Your task to perform on an android device: turn off data saver in the chrome app Image 0: 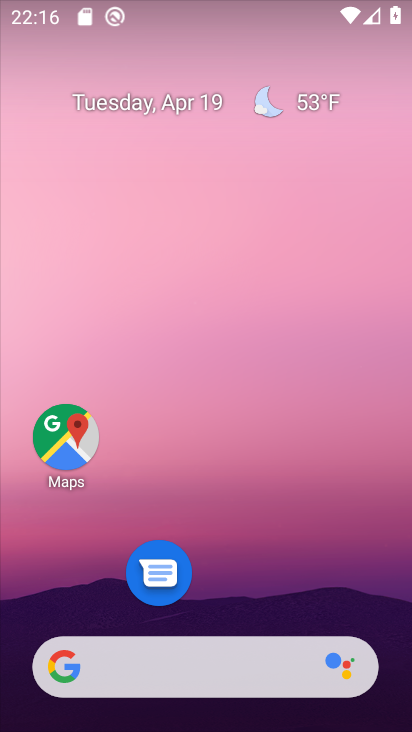
Step 0: drag from (244, 298) to (258, 0)
Your task to perform on an android device: turn off data saver in the chrome app Image 1: 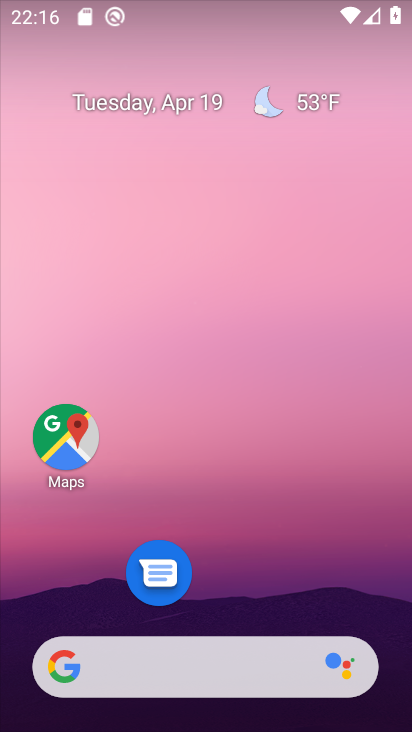
Step 1: drag from (244, 551) to (271, 47)
Your task to perform on an android device: turn off data saver in the chrome app Image 2: 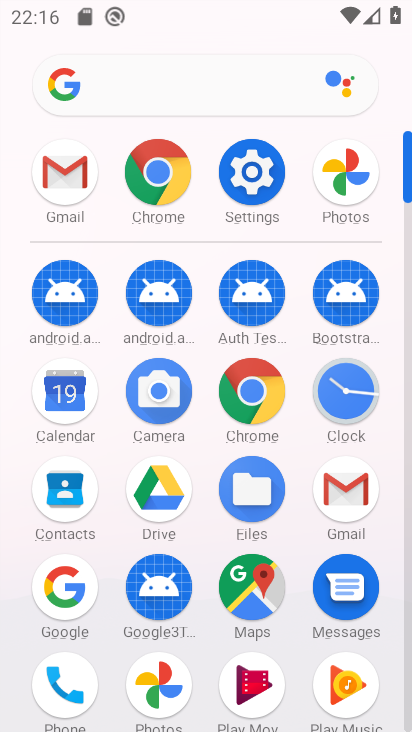
Step 2: click (159, 166)
Your task to perform on an android device: turn off data saver in the chrome app Image 3: 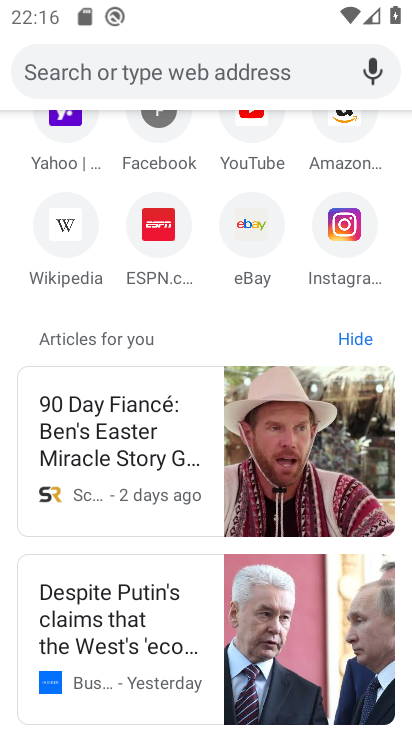
Step 3: drag from (213, 312) to (210, 658)
Your task to perform on an android device: turn off data saver in the chrome app Image 4: 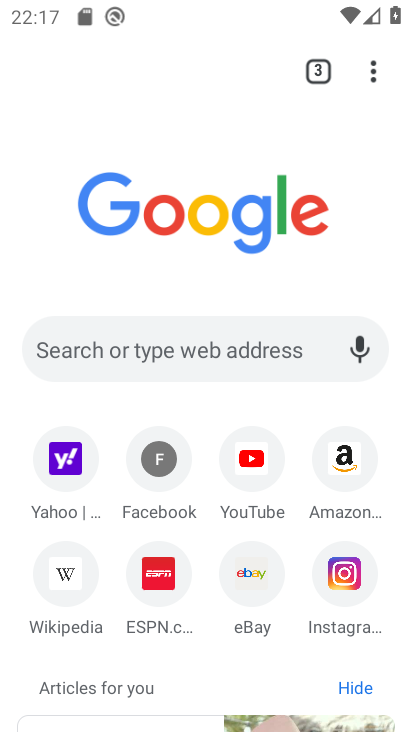
Step 4: click (373, 67)
Your task to perform on an android device: turn off data saver in the chrome app Image 5: 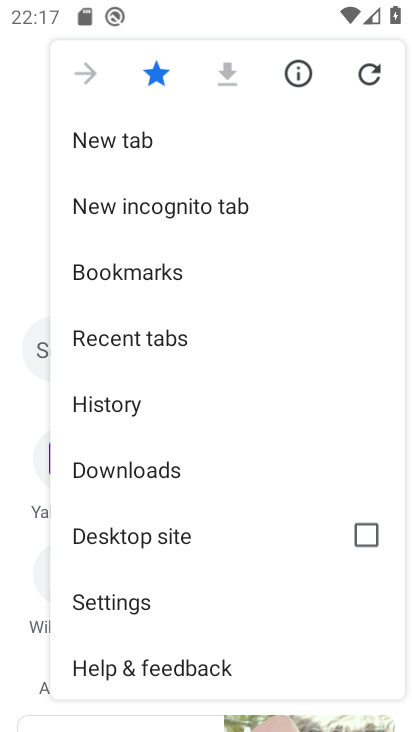
Step 5: click (176, 607)
Your task to perform on an android device: turn off data saver in the chrome app Image 6: 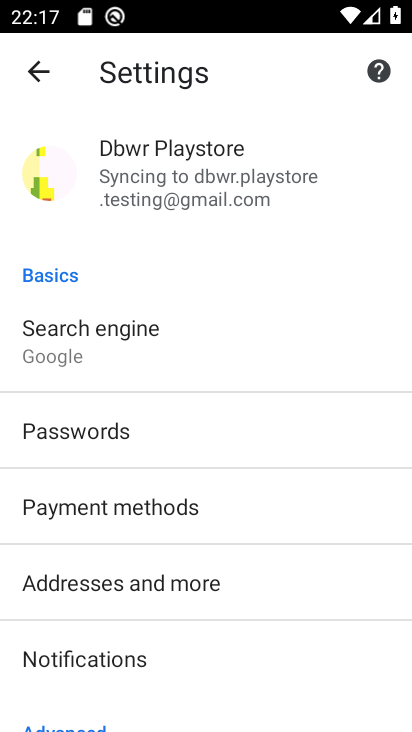
Step 6: drag from (181, 664) to (189, 144)
Your task to perform on an android device: turn off data saver in the chrome app Image 7: 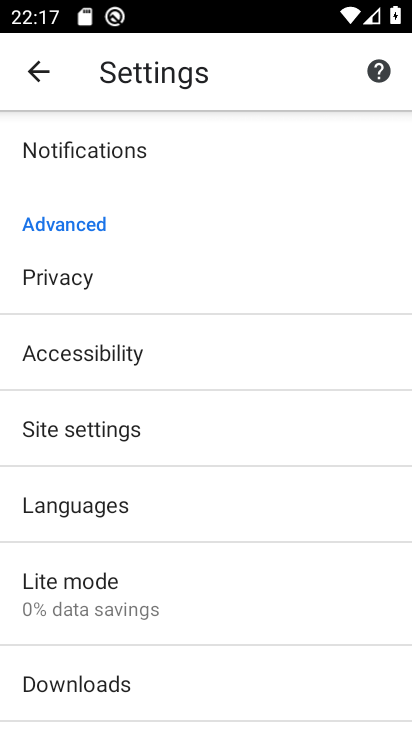
Step 7: click (131, 578)
Your task to perform on an android device: turn off data saver in the chrome app Image 8: 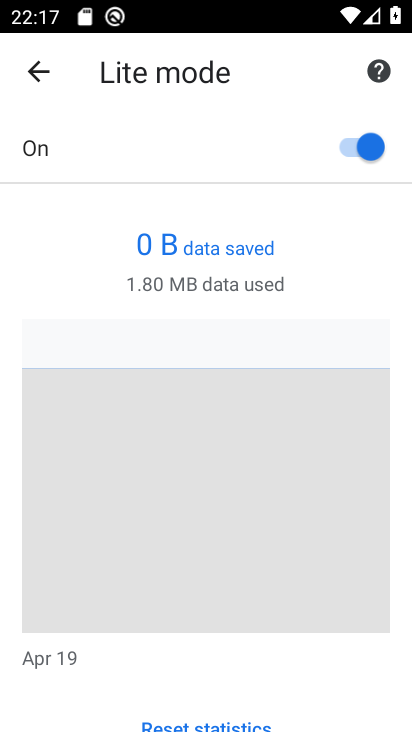
Step 8: click (352, 140)
Your task to perform on an android device: turn off data saver in the chrome app Image 9: 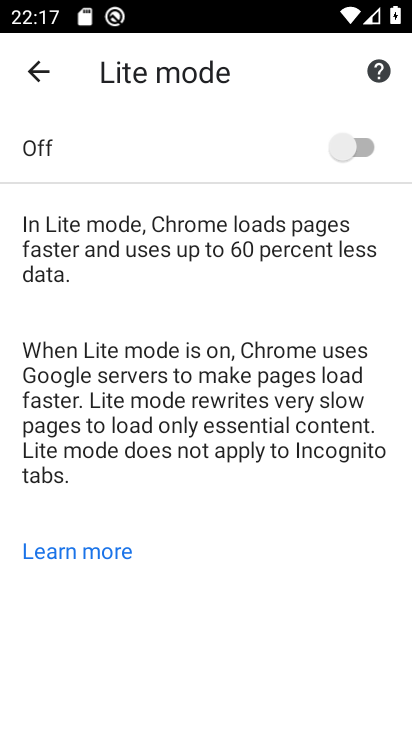
Step 9: task complete